Your task to perform on an android device: Do I have any events tomorrow? Image 0: 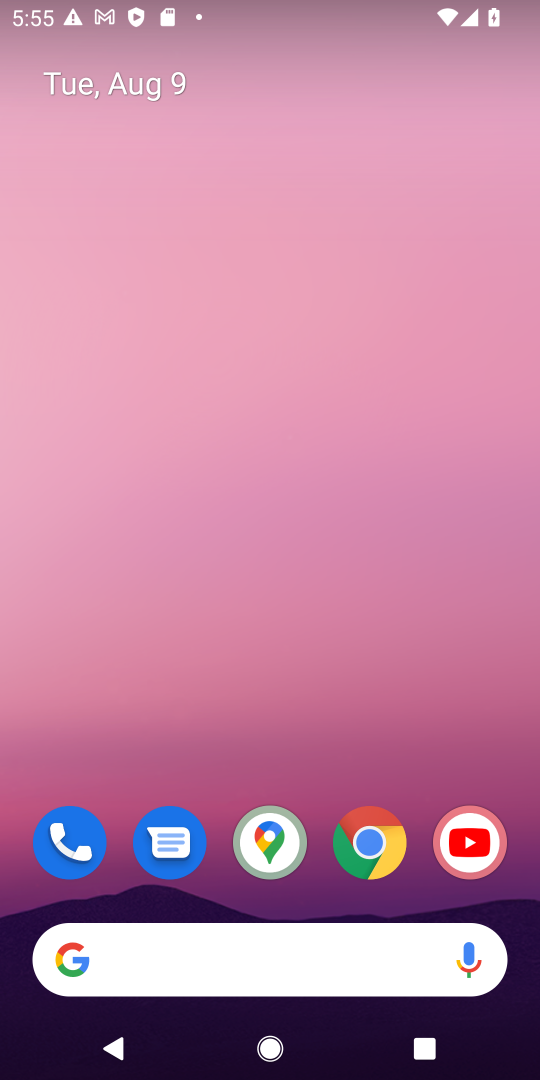
Step 0: drag from (275, 939) to (341, 56)
Your task to perform on an android device: Do I have any events tomorrow? Image 1: 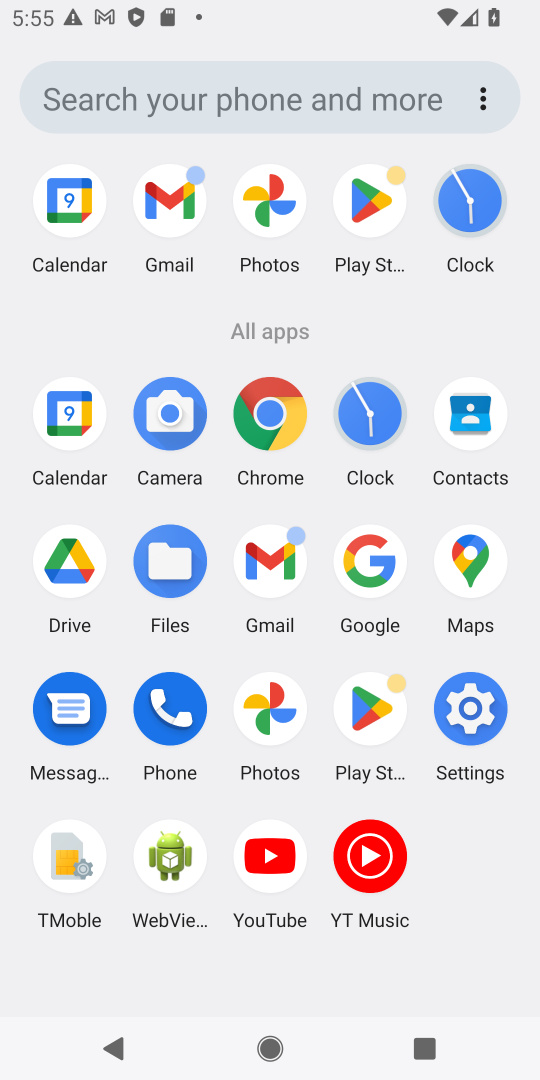
Step 1: click (52, 440)
Your task to perform on an android device: Do I have any events tomorrow? Image 2: 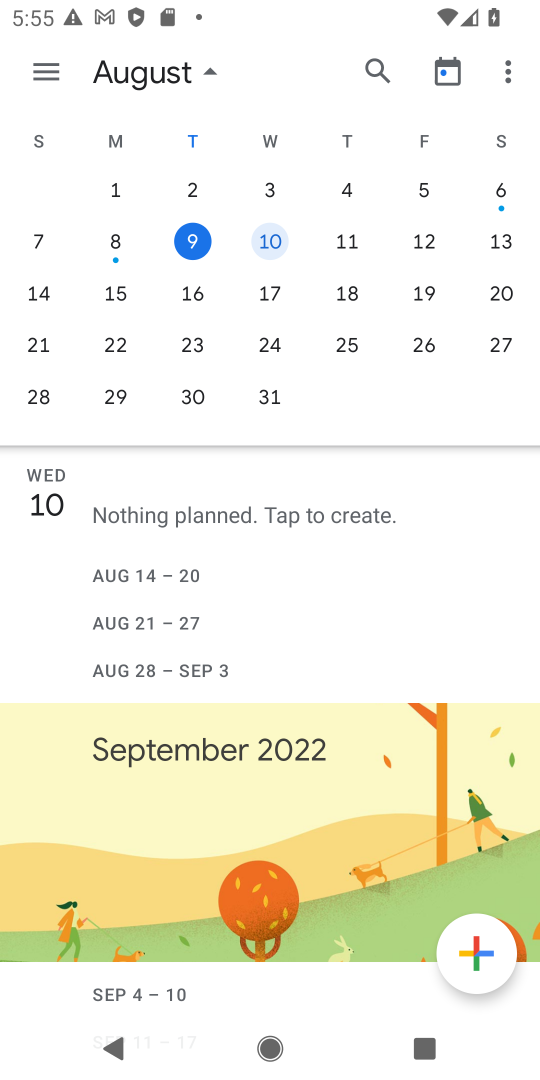
Step 2: click (257, 244)
Your task to perform on an android device: Do I have any events tomorrow? Image 3: 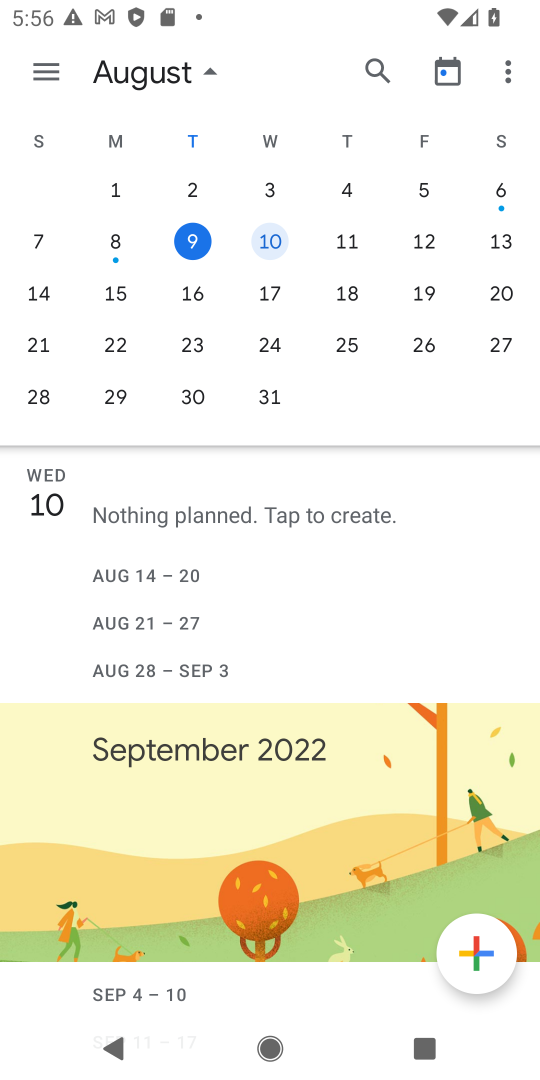
Step 3: task complete